Your task to perform on an android device: Open the Play Movies app and select the watchlist tab. Image 0: 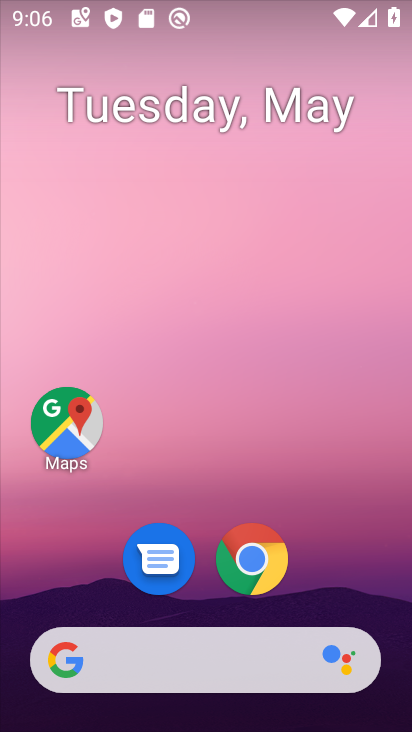
Step 0: drag from (356, 540) to (282, 1)
Your task to perform on an android device: Open the Play Movies app and select the watchlist tab. Image 1: 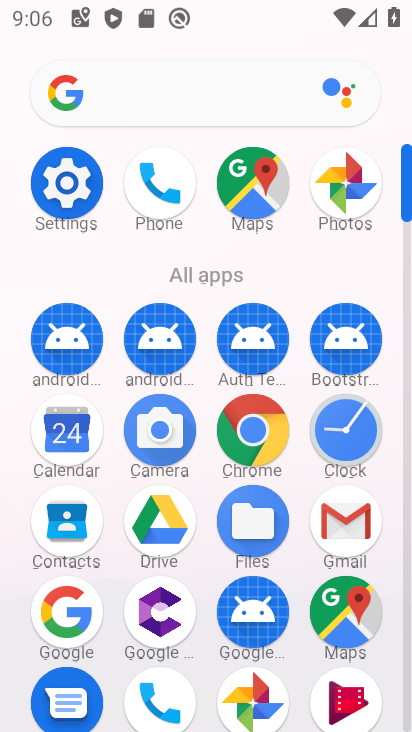
Step 1: drag from (297, 559) to (292, 126)
Your task to perform on an android device: Open the Play Movies app and select the watchlist tab. Image 2: 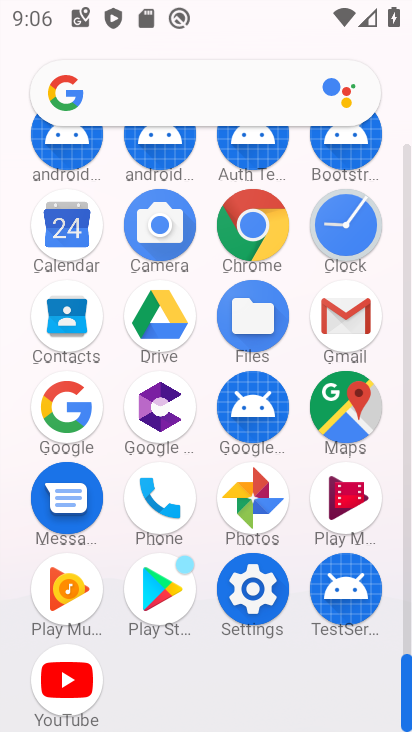
Step 2: click (346, 500)
Your task to perform on an android device: Open the Play Movies app and select the watchlist tab. Image 3: 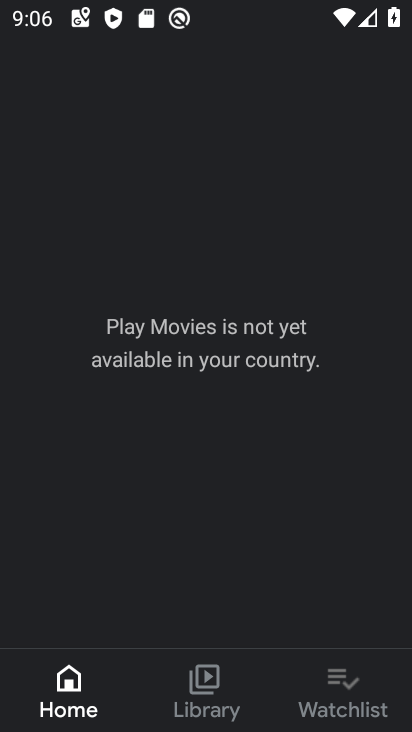
Step 3: click (322, 704)
Your task to perform on an android device: Open the Play Movies app and select the watchlist tab. Image 4: 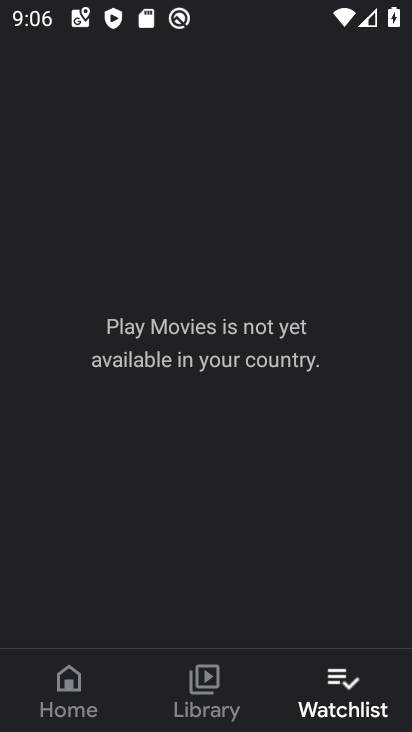
Step 4: task complete